Your task to perform on an android device: turn on data saver in the chrome app Image 0: 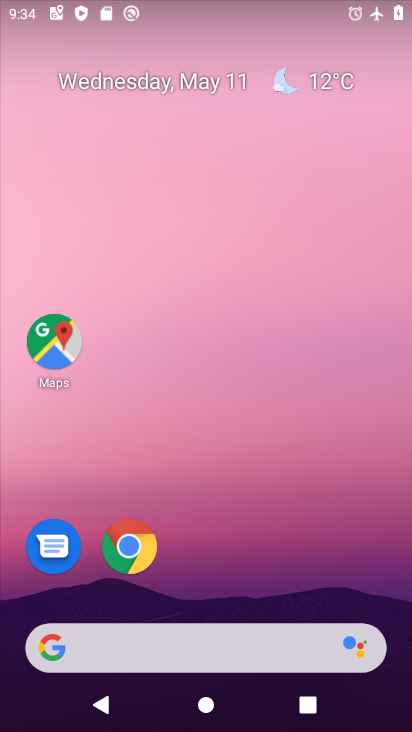
Step 0: click (131, 543)
Your task to perform on an android device: turn on data saver in the chrome app Image 1: 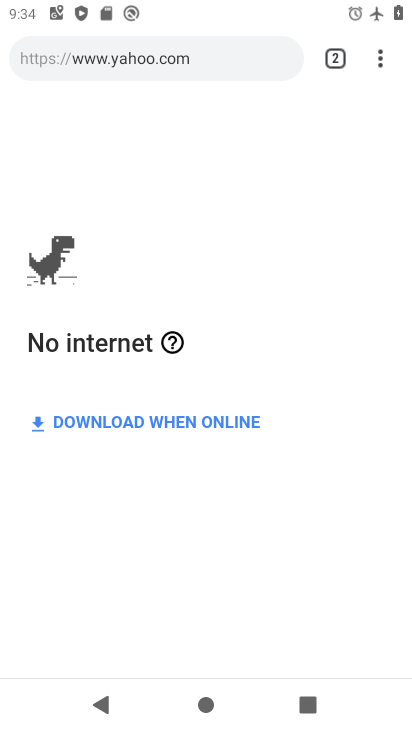
Step 1: click (376, 63)
Your task to perform on an android device: turn on data saver in the chrome app Image 2: 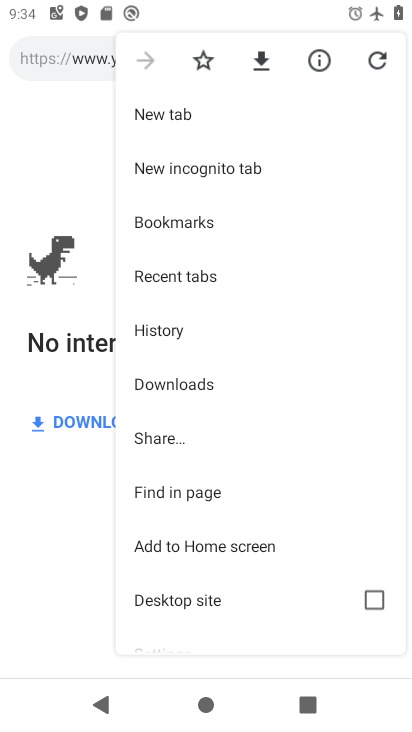
Step 2: drag from (299, 547) to (284, 382)
Your task to perform on an android device: turn on data saver in the chrome app Image 3: 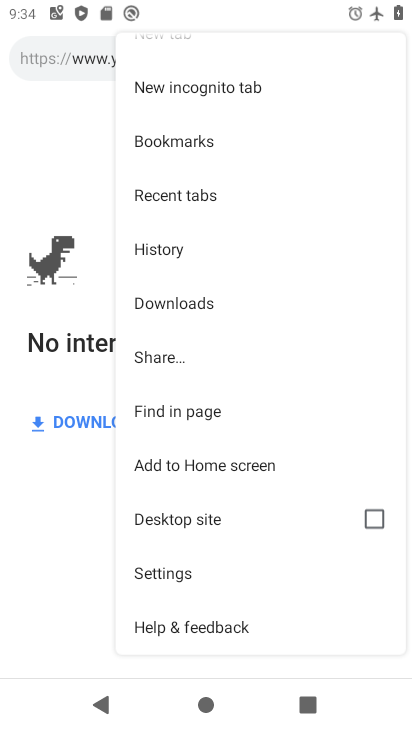
Step 3: click (172, 569)
Your task to perform on an android device: turn on data saver in the chrome app Image 4: 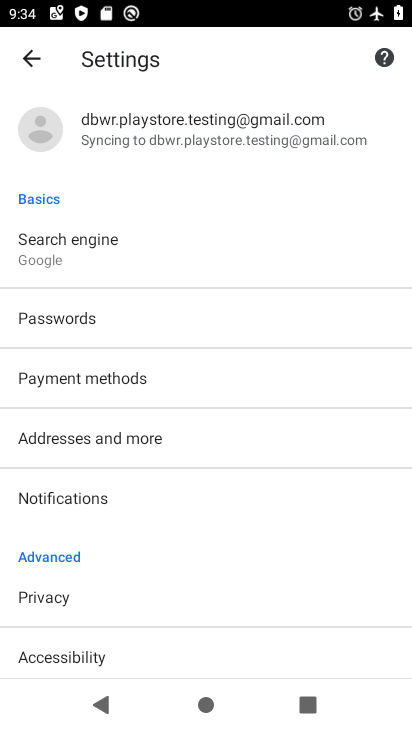
Step 4: drag from (180, 599) to (249, 194)
Your task to perform on an android device: turn on data saver in the chrome app Image 5: 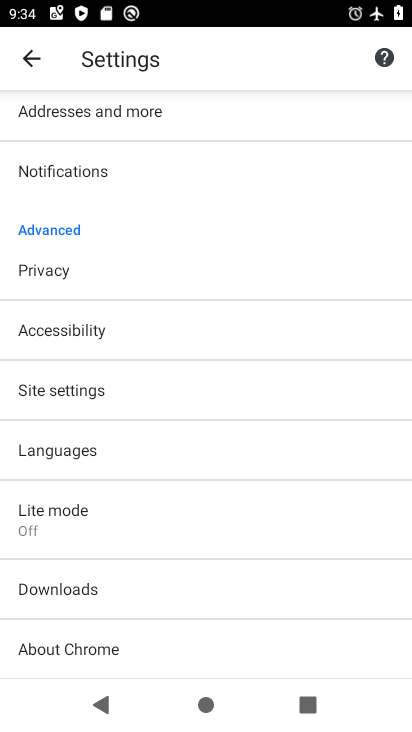
Step 5: click (46, 510)
Your task to perform on an android device: turn on data saver in the chrome app Image 6: 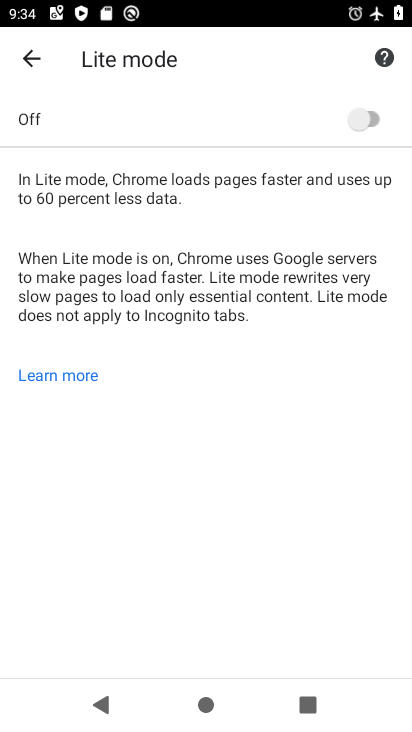
Step 6: click (372, 117)
Your task to perform on an android device: turn on data saver in the chrome app Image 7: 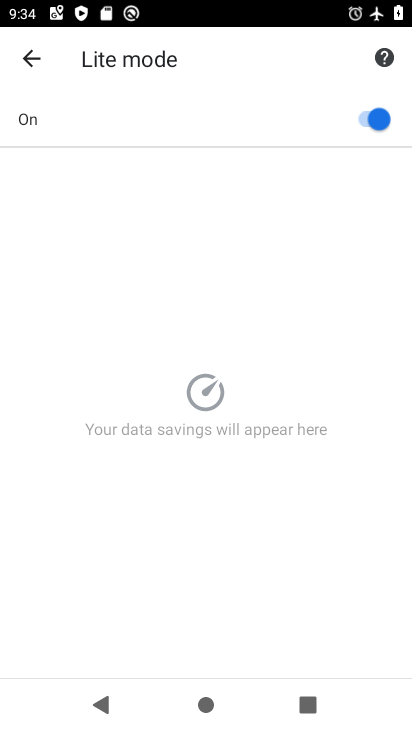
Step 7: task complete